Your task to perform on an android device: uninstall "Lyft - Rideshare, Bikes, Scooters & Transit" Image 0: 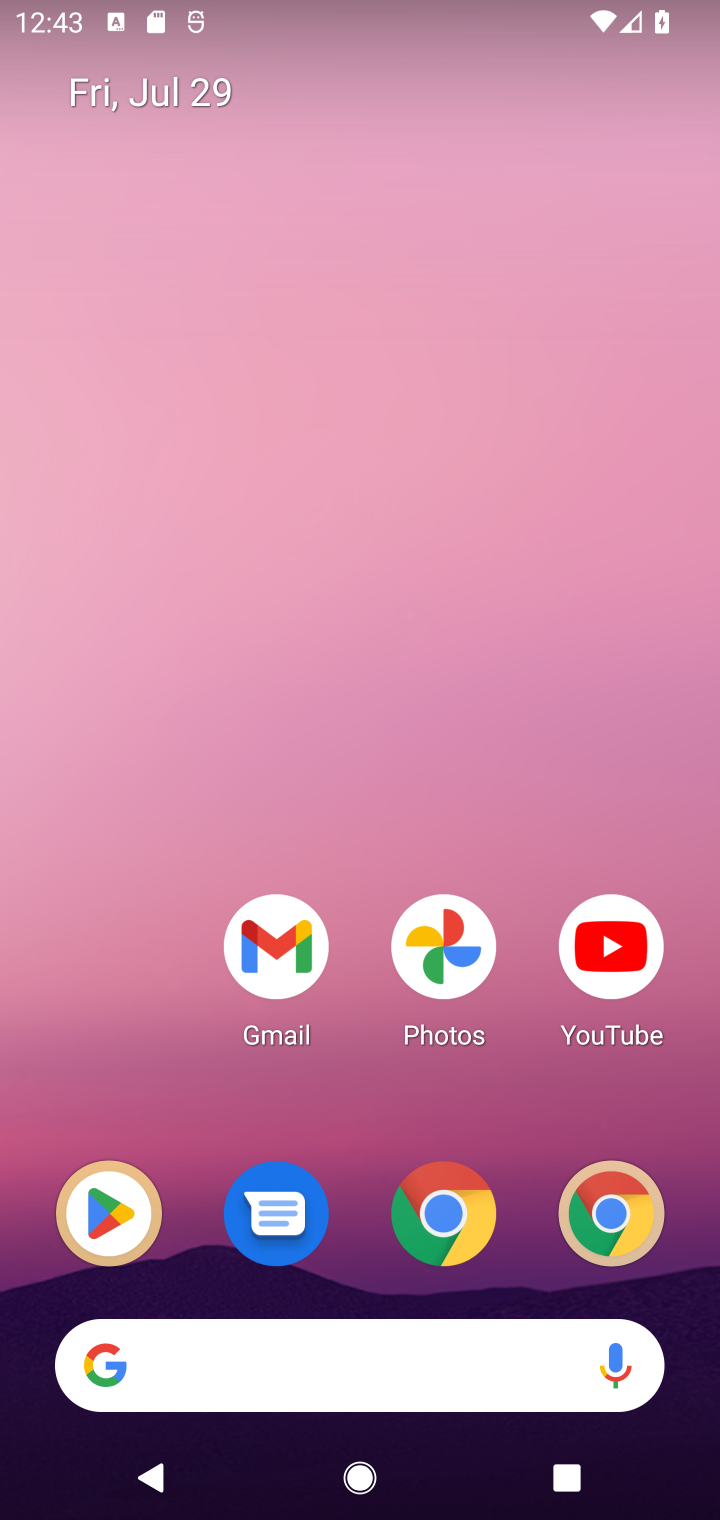
Step 0: drag from (459, 1279) to (442, 172)
Your task to perform on an android device: uninstall "Lyft - Rideshare, Bikes, Scooters & Transit" Image 1: 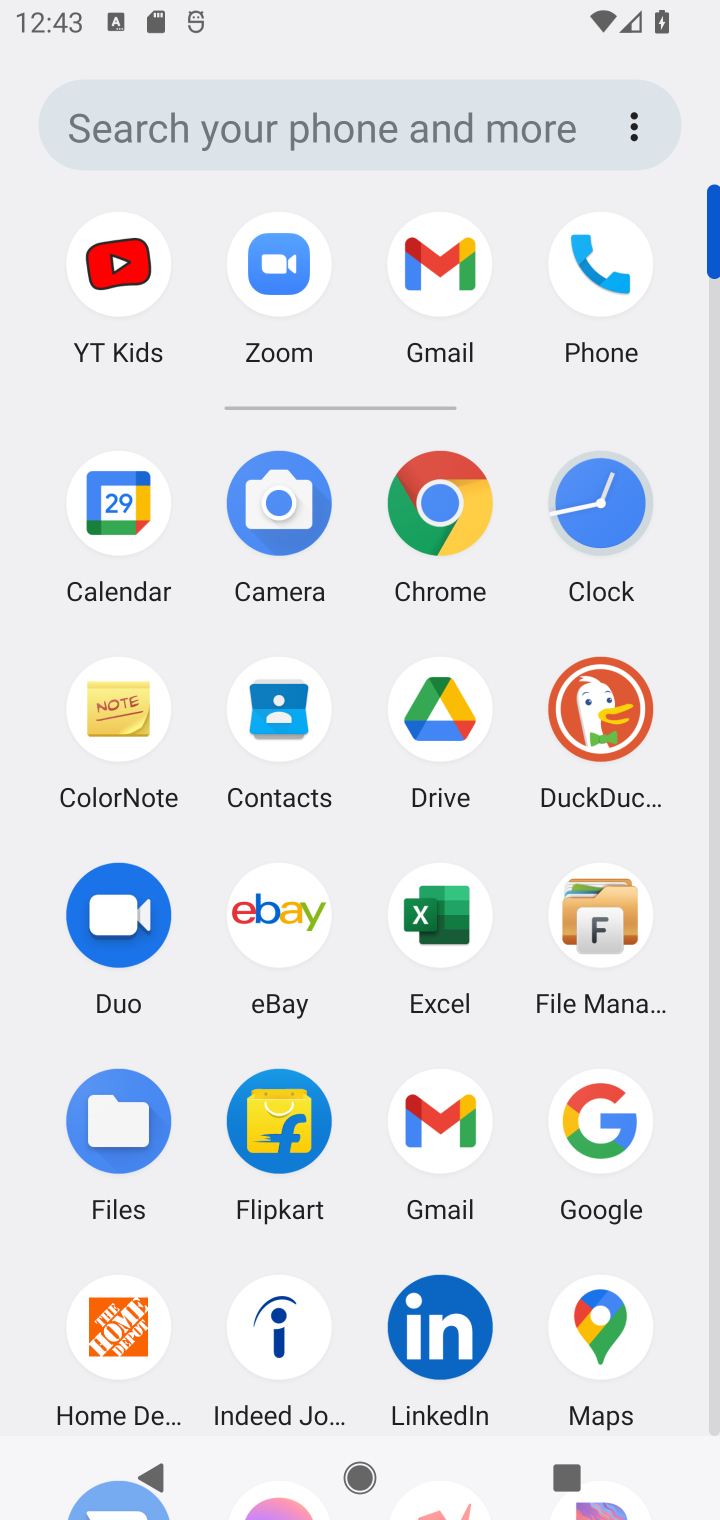
Step 1: drag from (526, 1333) to (519, 494)
Your task to perform on an android device: uninstall "Lyft - Rideshare, Bikes, Scooters & Transit" Image 2: 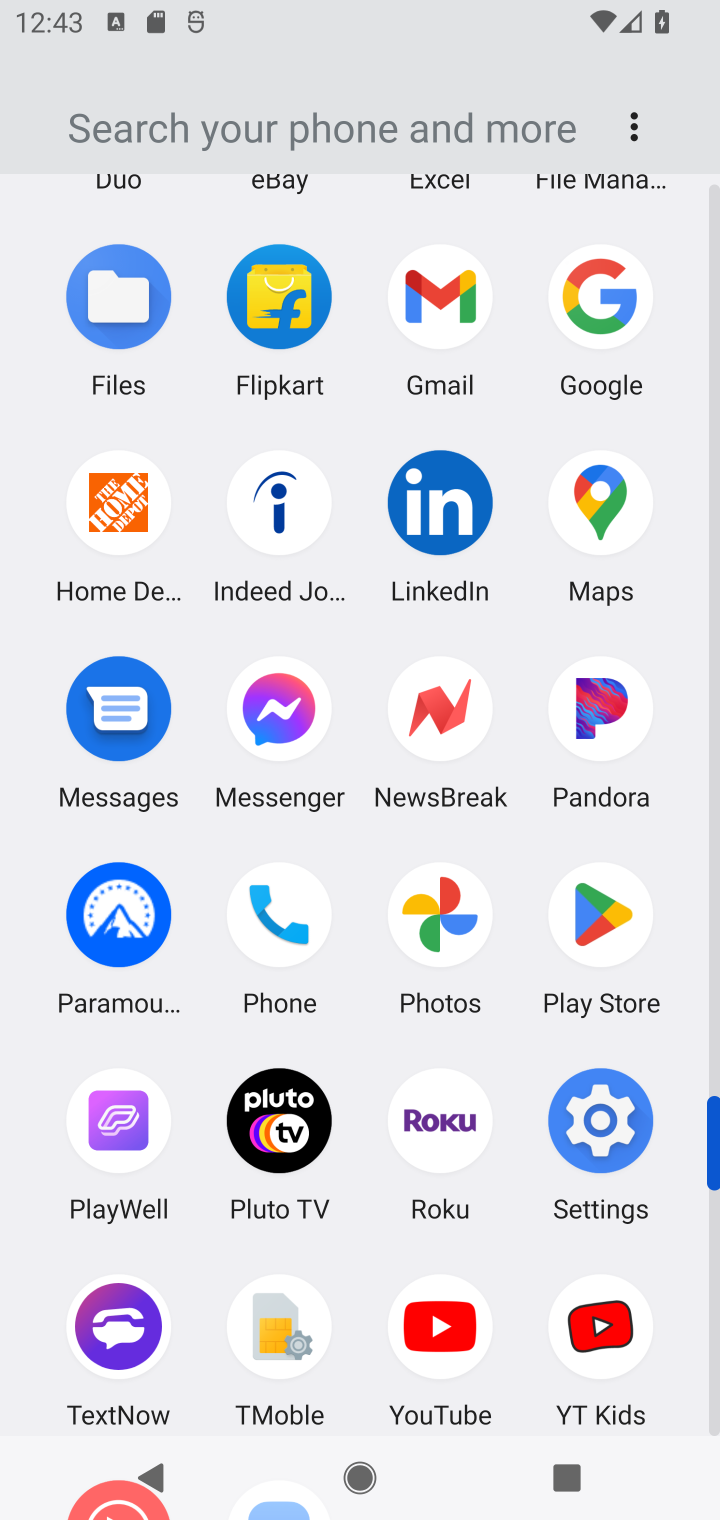
Step 2: click (585, 908)
Your task to perform on an android device: uninstall "Lyft - Rideshare, Bikes, Scooters & Transit" Image 3: 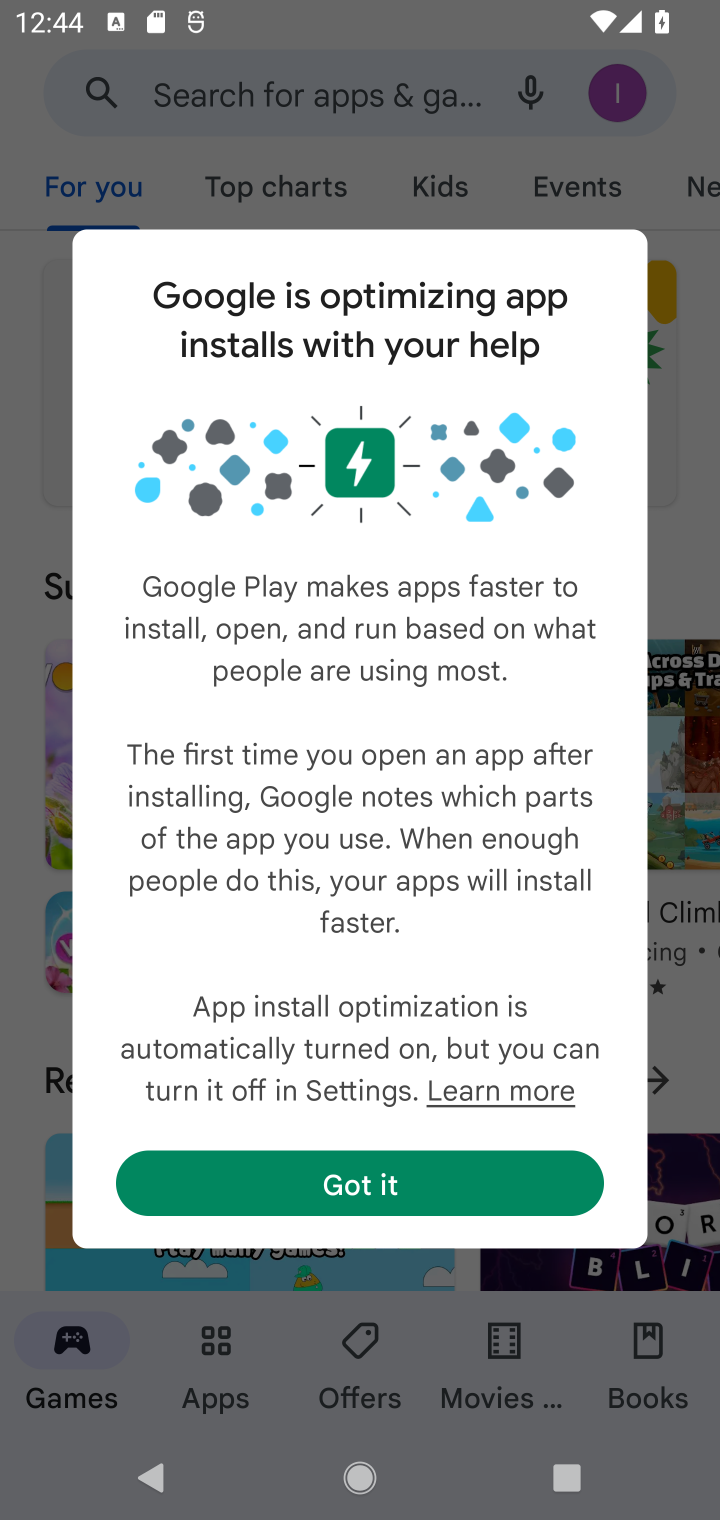
Step 3: click (368, 1189)
Your task to perform on an android device: uninstall "Lyft - Rideshare, Bikes, Scooters & Transit" Image 4: 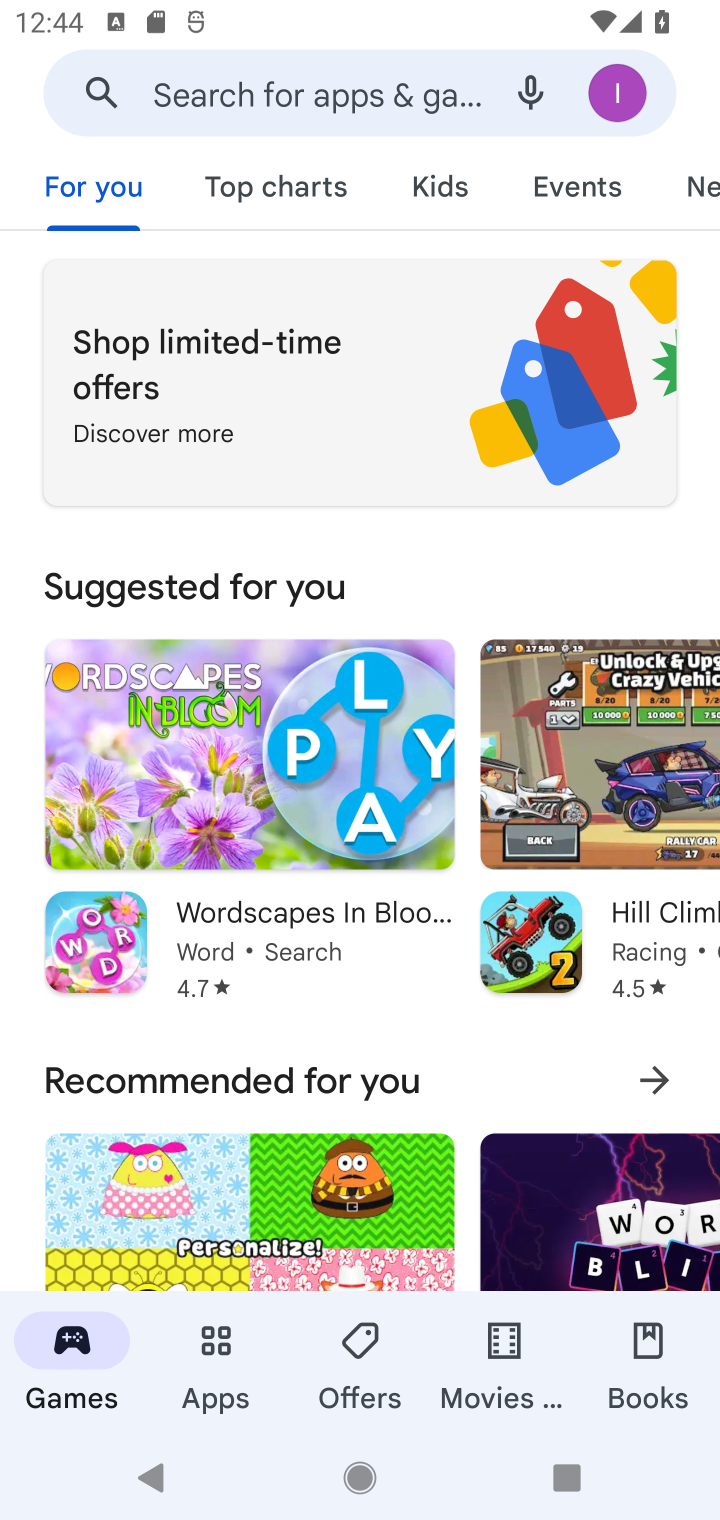
Step 4: click (320, 85)
Your task to perform on an android device: uninstall "Lyft - Rideshare, Bikes, Scooters & Transit" Image 5: 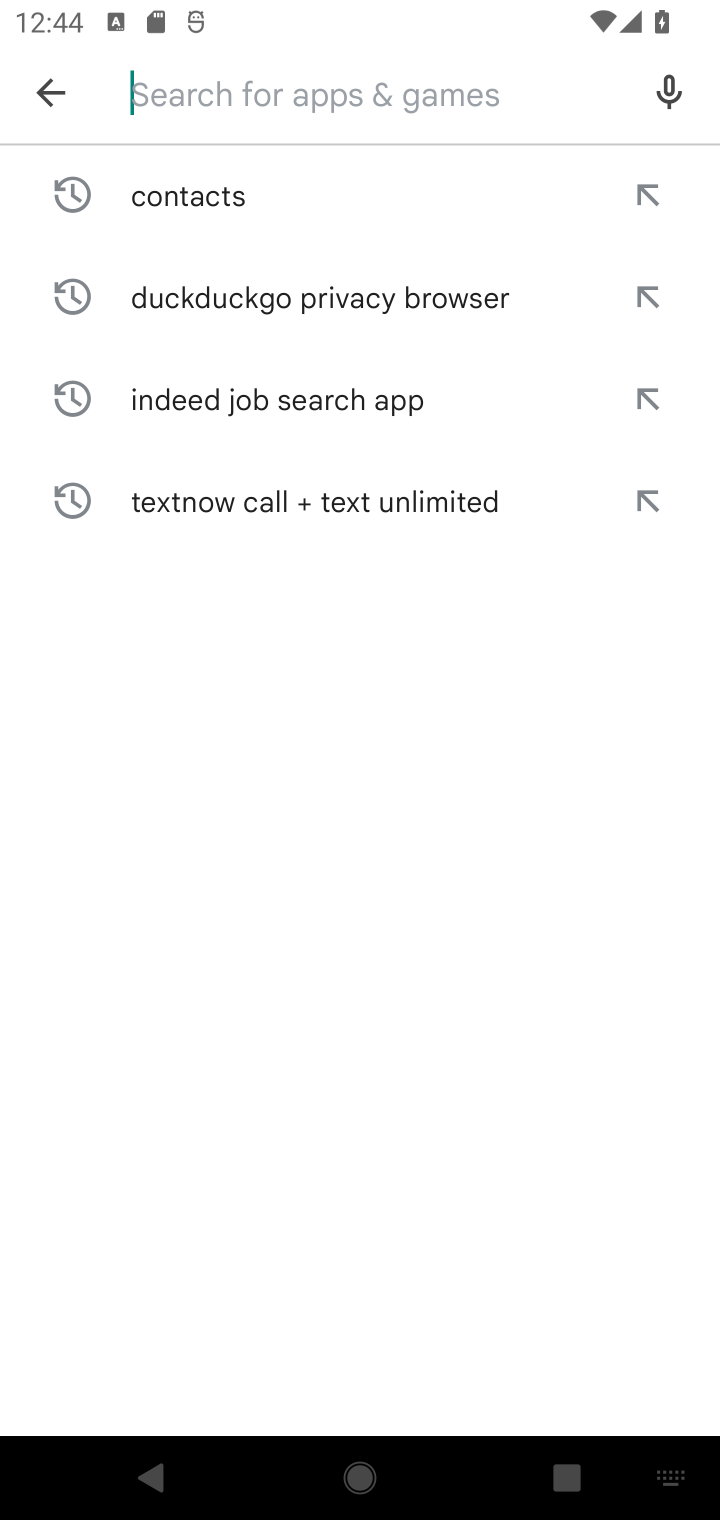
Step 5: type "Lyft - Rideshare, Bikes, Scooters & Transit"
Your task to perform on an android device: uninstall "Lyft - Rideshare, Bikes, Scooters & Transit" Image 6: 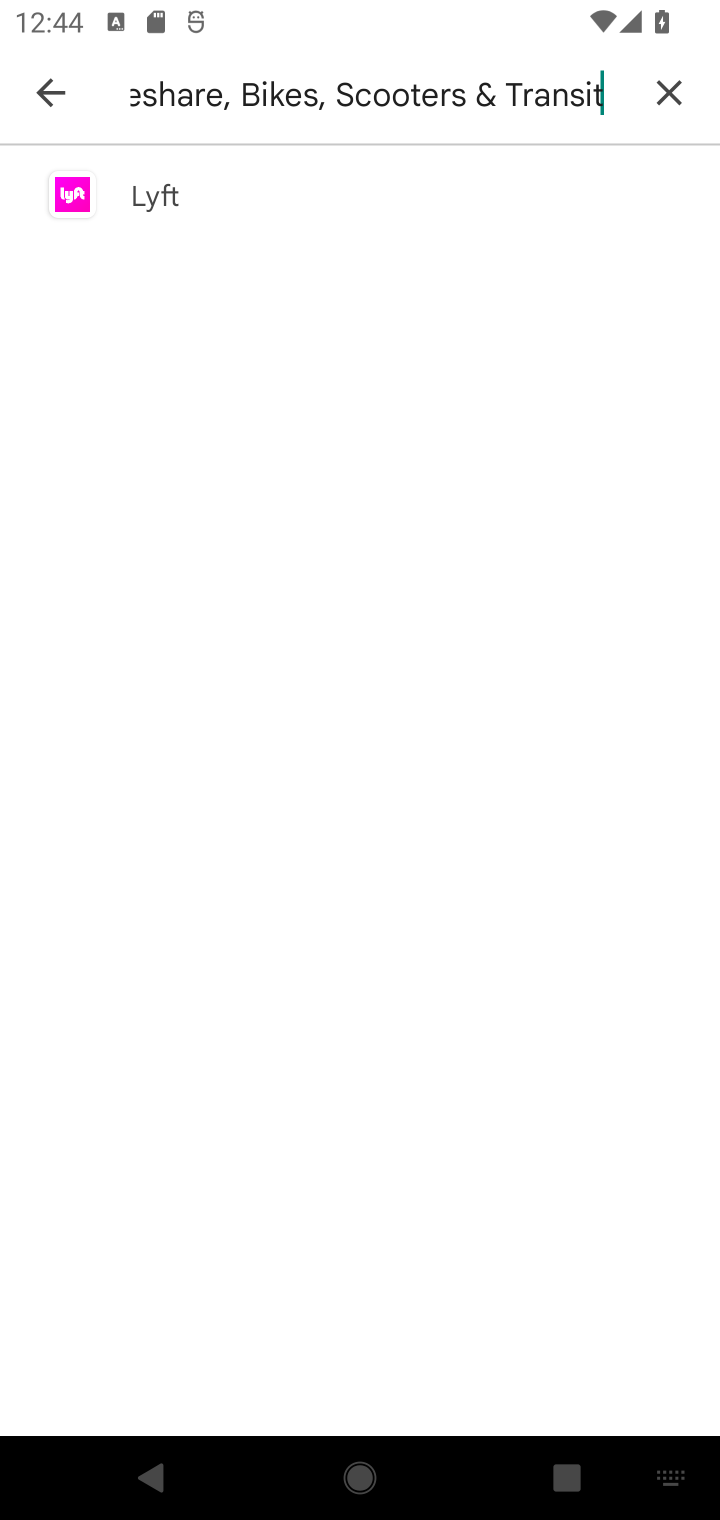
Step 6: click (153, 198)
Your task to perform on an android device: uninstall "Lyft - Rideshare, Bikes, Scooters & Transit" Image 7: 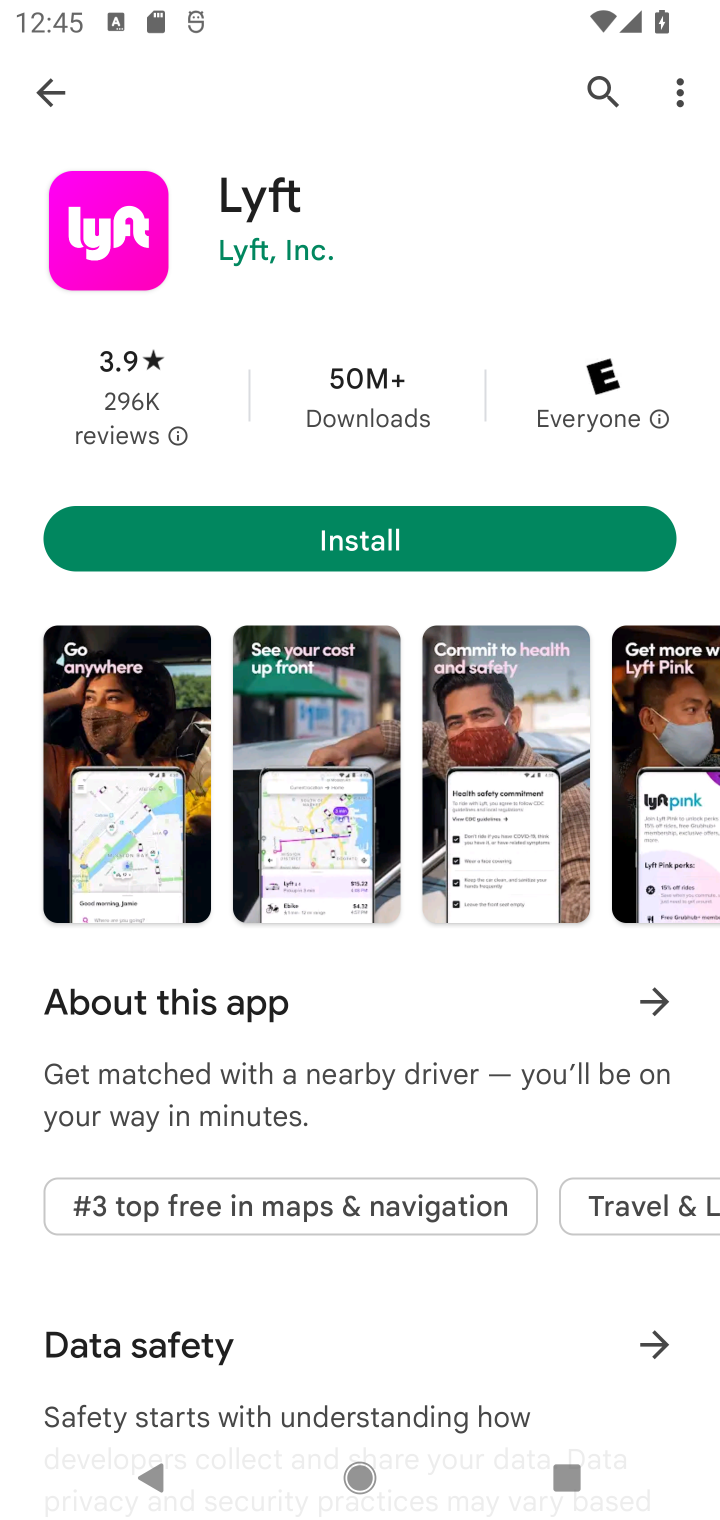
Step 7: task complete